Your task to perform on an android device: Go to Yahoo.com Image 0: 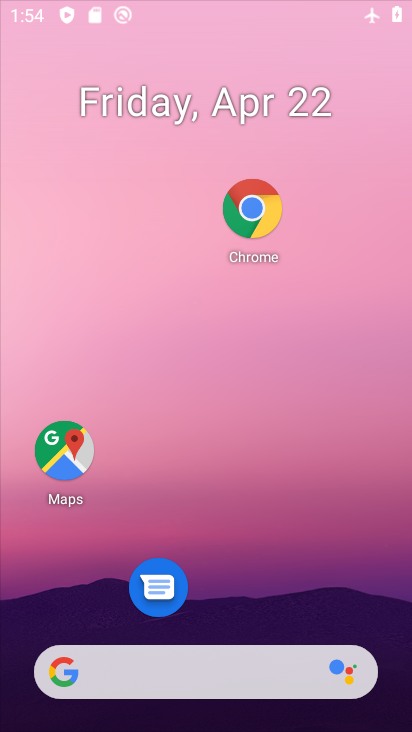
Step 0: drag from (212, 468) to (77, 7)
Your task to perform on an android device: Go to Yahoo.com Image 1: 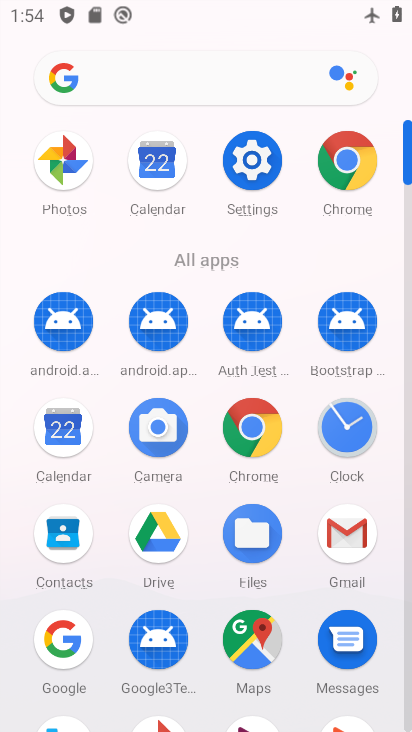
Step 1: click (242, 421)
Your task to perform on an android device: Go to Yahoo.com Image 2: 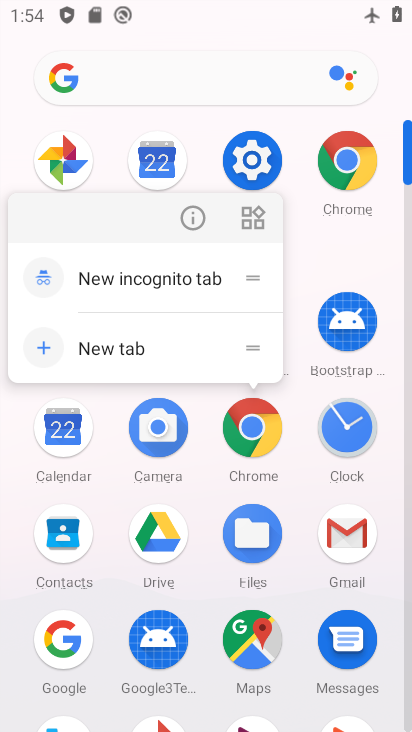
Step 2: click (186, 227)
Your task to perform on an android device: Go to Yahoo.com Image 3: 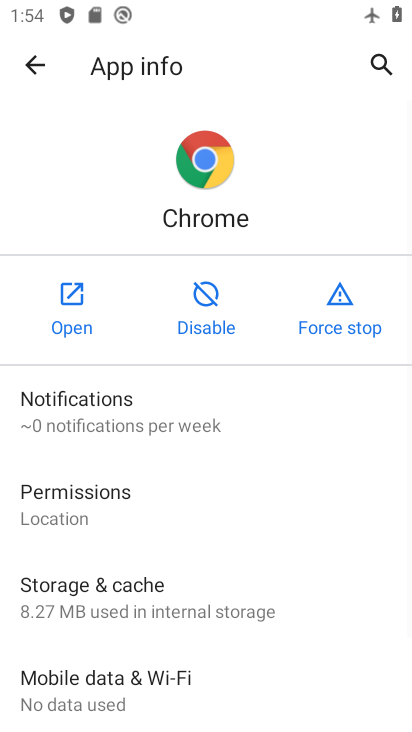
Step 3: click (83, 299)
Your task to perform on an android device: Go to Yahoo.com Image 4: 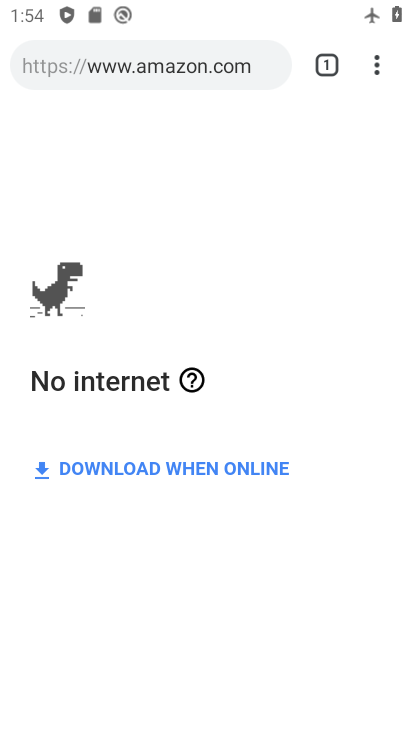
Step 4: task complete